Your task to perform on an android device: Open Google Chrome and open the bookmarks view Image 0: 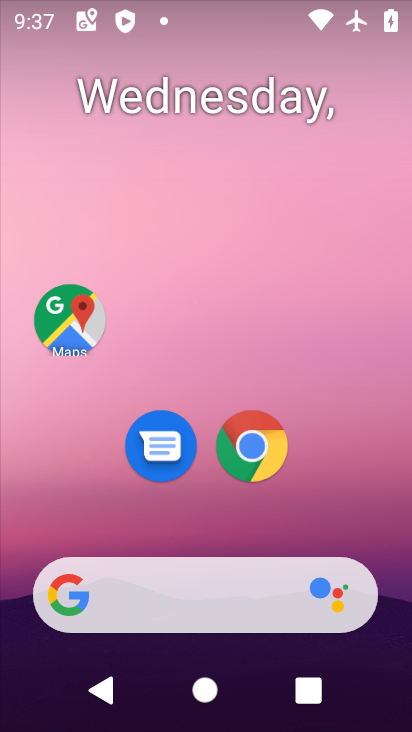
Step 0: press home button
Your task to perform on an android device: Open Google Chrome and open the bookmarks view Image 1: 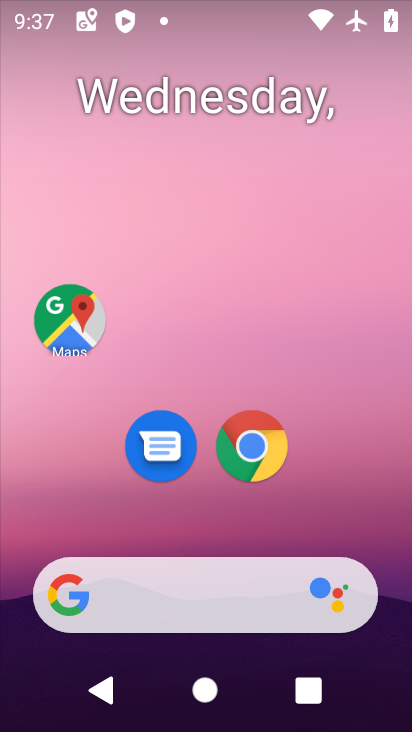
Step 1: click (250, 462)
Your task to perform on an android device: Open Google Chrome and open the bookmarks view Image 2: 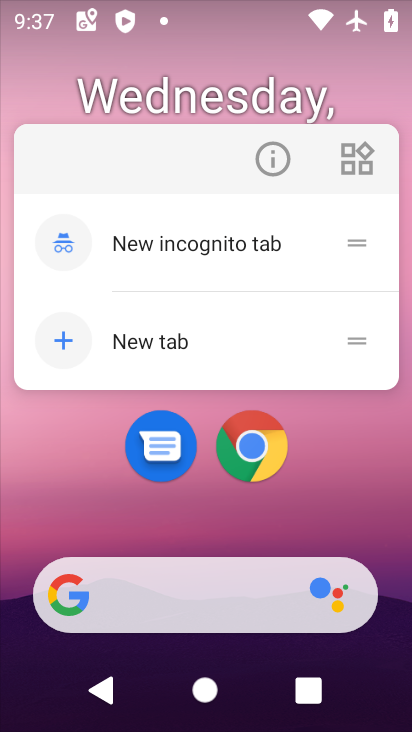
Step 2: click (262, 448)
Your task to perform on an android device: Open Google Chrome and open the bookmarks view Image 3: 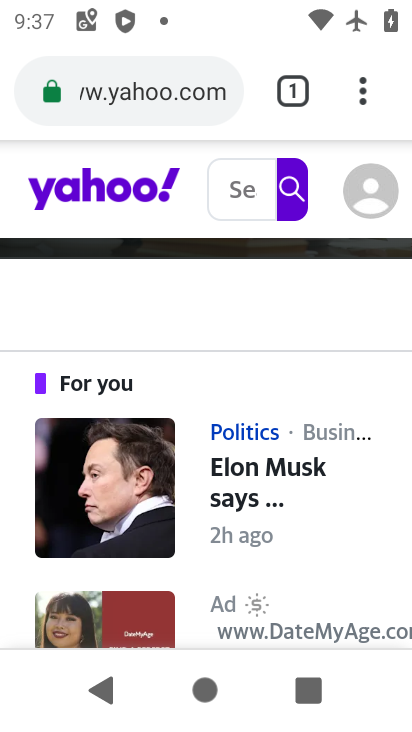
Step 3: task complete